Your task to perform on an android device: Open CNN.com Image 0: 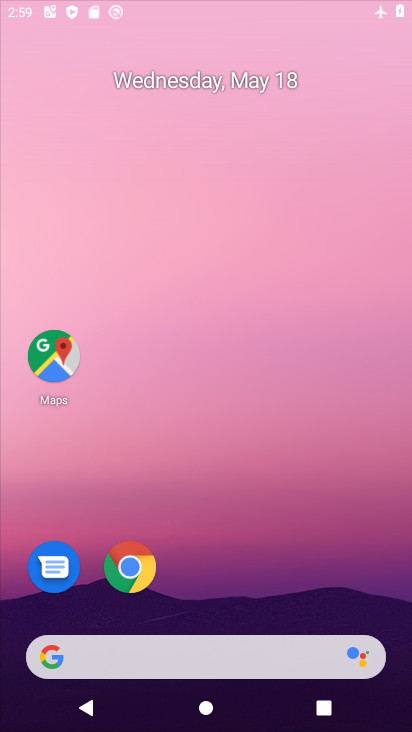
Step 0: drag from (286, 593) to (294, 161)
Your task to perform on an android device: Open CNN.com Image 1: 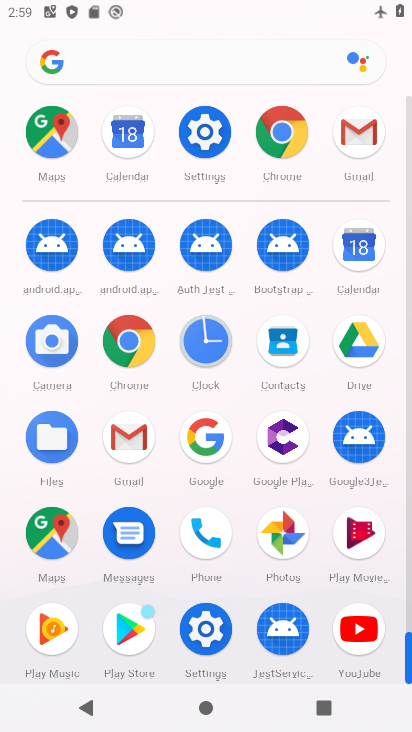
Step 1: click (293, 132)
Your task to perform on an android device: Open CNN.com Image 2: 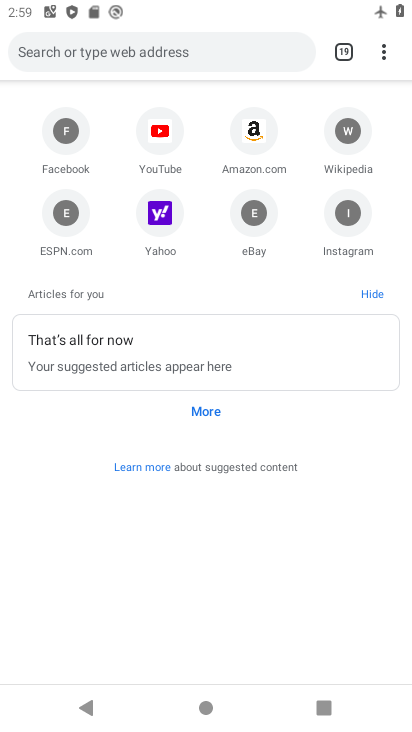
Step 2: click (131, 43)
Your task to perform on an android device: Open CNN.com Image 3: 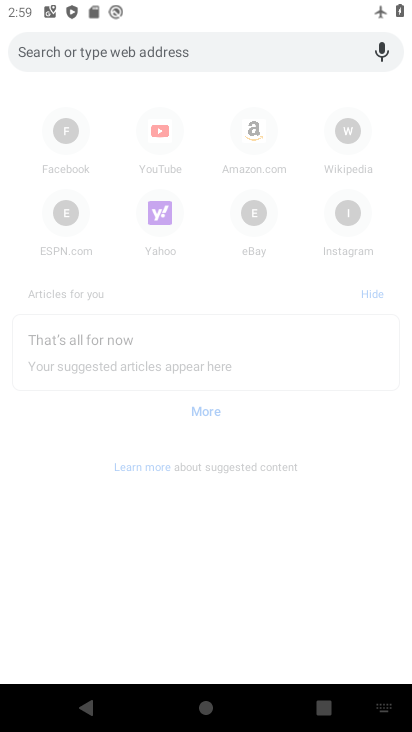
Step 3: type "CNN.com"
Your task to perform on an android device: Open CNN.com Image 4: 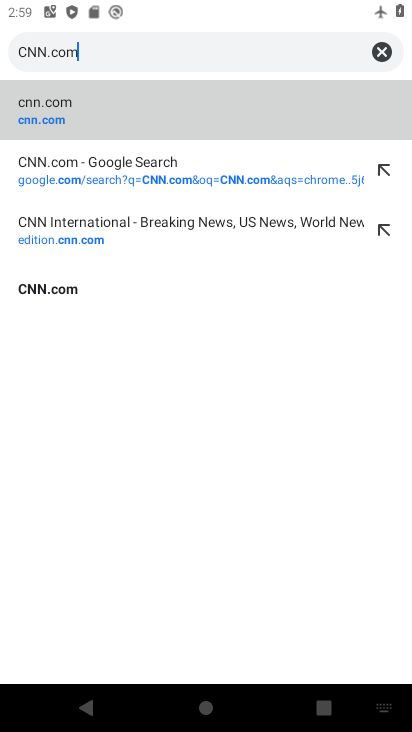
Step 4: click (209, 106)
Your task to perform on an android device: Open CNN.com Image 5: 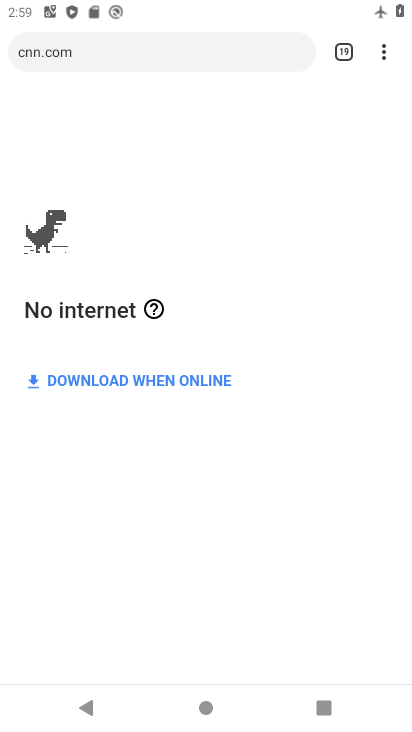
Step 5: task complete